Your task to perform on an android device: set default search engine in the chrome app Image 0: 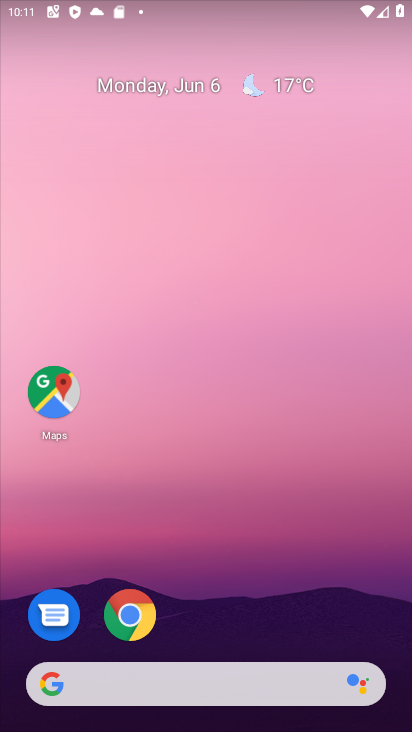
Step 0: click (112, 616)
Your task to perform on an android device: set default search engine in the chrome app Image 1: 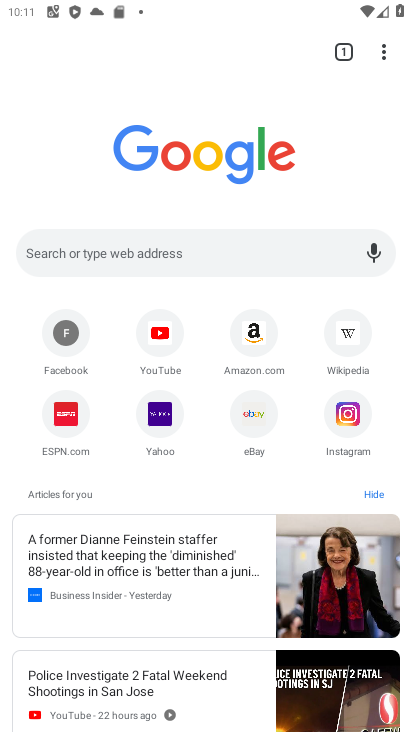
Step 1: click (389, 53)
Your task to perform on an android device: set default search engine in the chrome app Image 2: 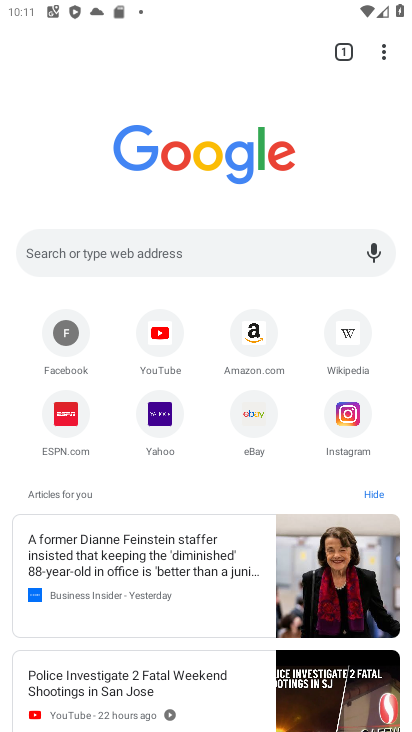
Step 2: drag from (376, 53) to (187, 434)
Your task to perform on an android device: set default search engine in the chrome app Image 3: 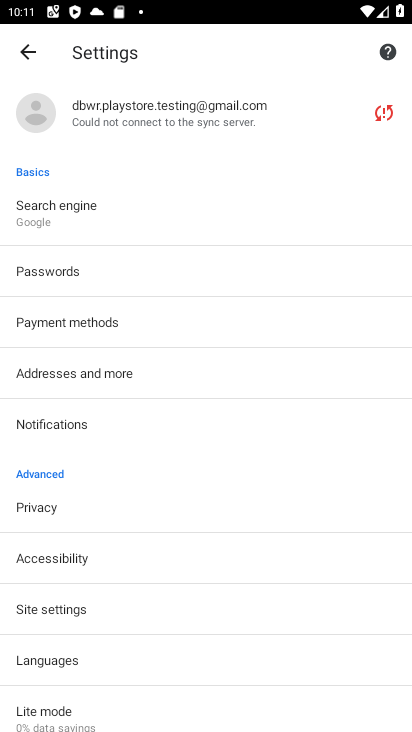
Step 3: click (109, 239)
Your task to perform on an android device: set default search engine in the chrome app Image 4: 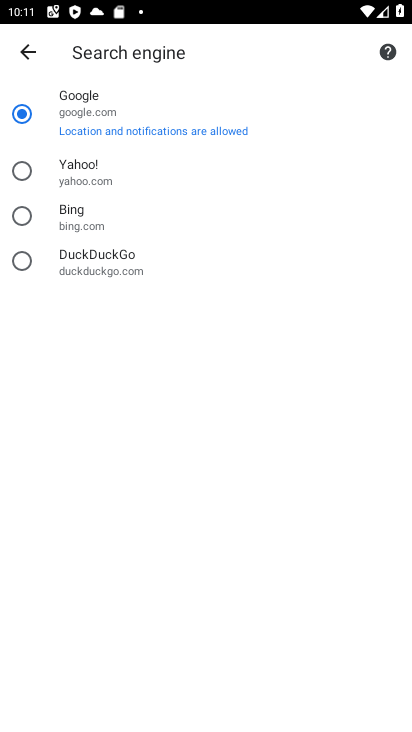
Step 4: click (53, 174)
Your task to perform on an android device: set default search engine in the chrome app Image 5: 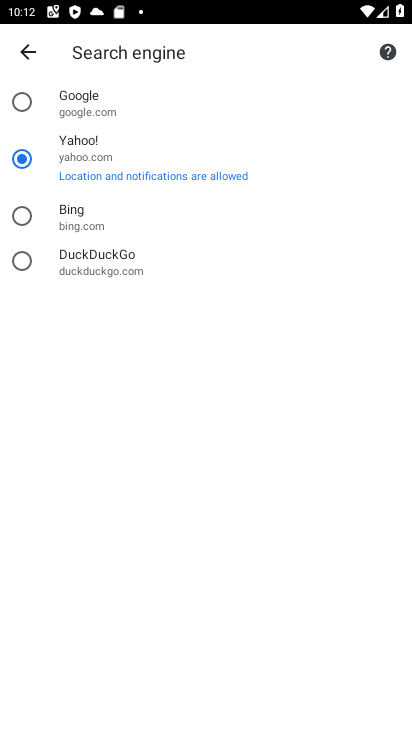
Step 5: task complete